Your task to perform on an android device: Open wifi settings Image 0: 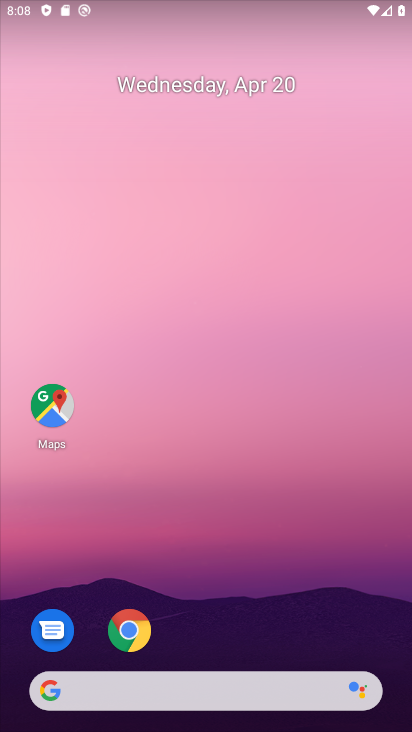
Step 0: drag from (263, 509) to (217, 92)
Your task to perform on an android device: Open wifi settings Image 1: 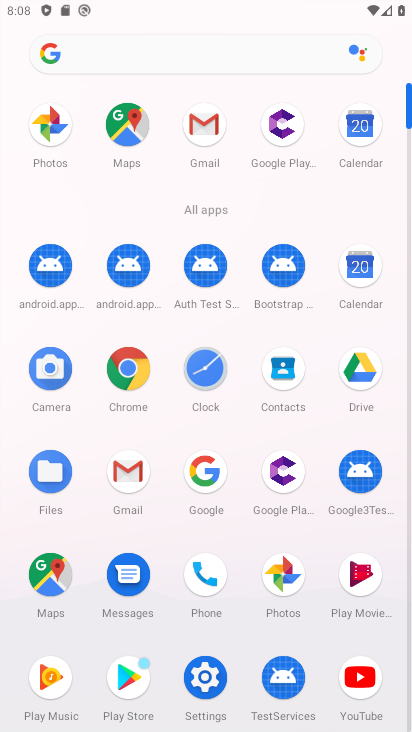
Step 1: click (206, 665)
Your task to perform on an android device: Open wifi settings Image 2: 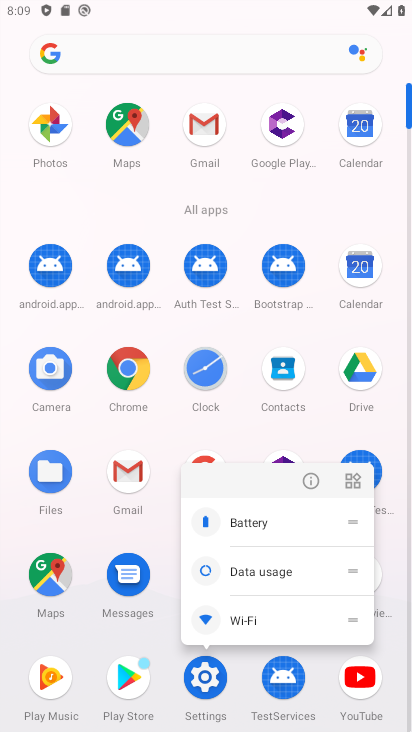
Step 2: click (199, 673)
Your task to perform on an android device: Open wifi settings Image 3: 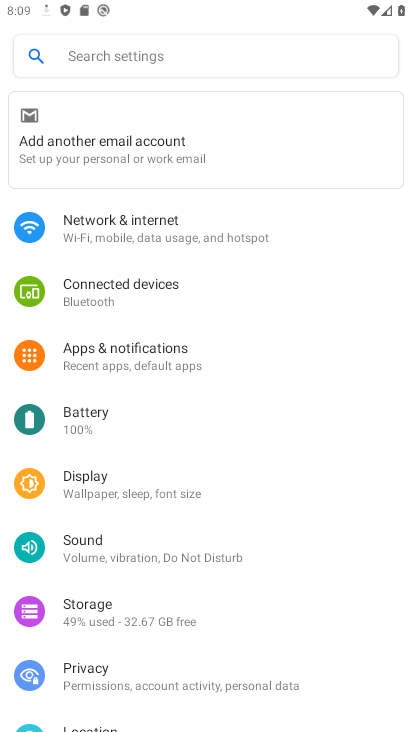
Step 3: click (170, 233)
Your task to perform on an android device: Open wifi settings Image 4: 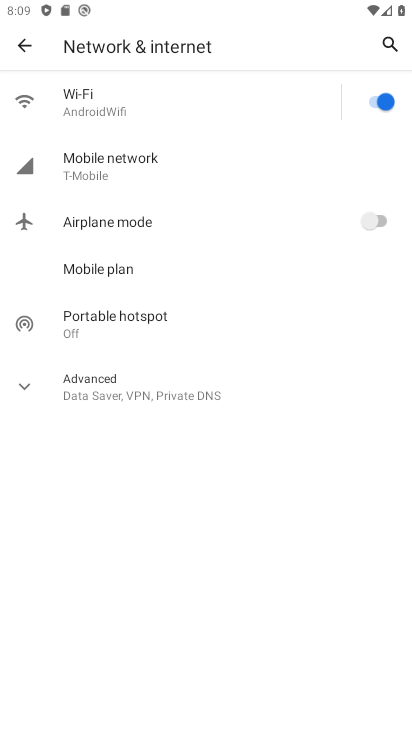
Step 4: click (92, 97)
Your task to perform on an android device: Open wifi settings Image 5: 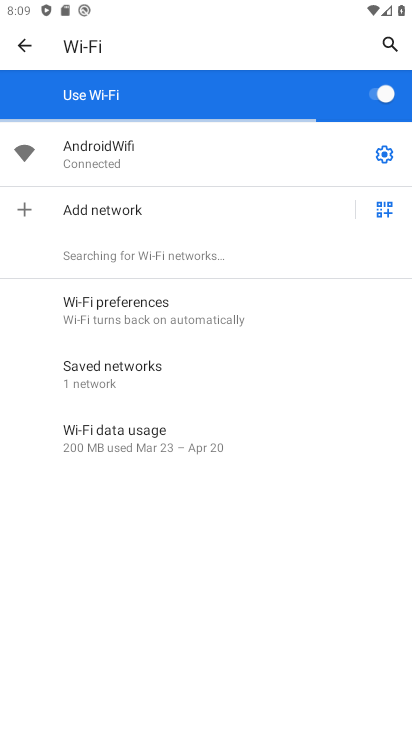
Step 5: task complete